Your task to perform on an android device: toggle notifications settings in the gmail app Image 0: 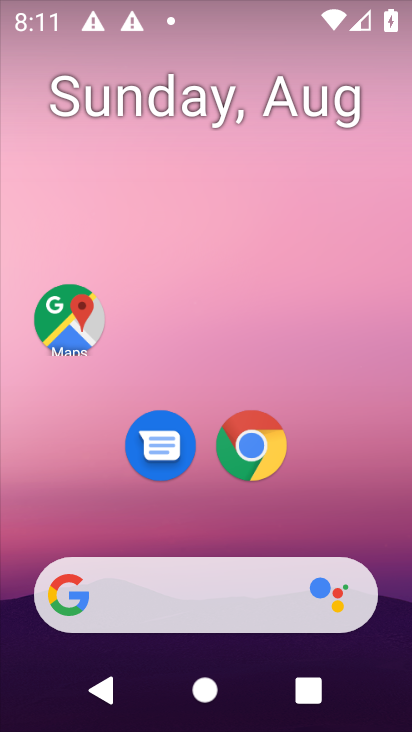
Step 0: drag from (209, 537) to (202, 53)
Your task to perform on an android device: toggle notifications settings in the gmail app Image 1: 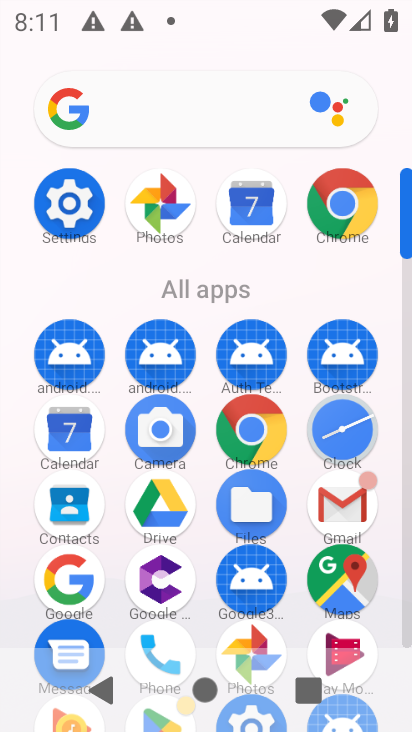
Step 1: click (333, 494)
Your task to perform on an android device: toggle notifications settings in the gmail app Image 2: 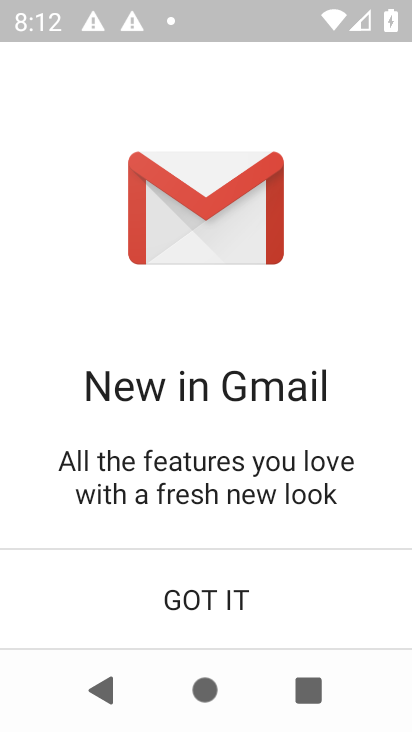
Step 2: click (210, 605)
Your task to perform on an android device: toggle notifications settings in the gmail app Image 3: 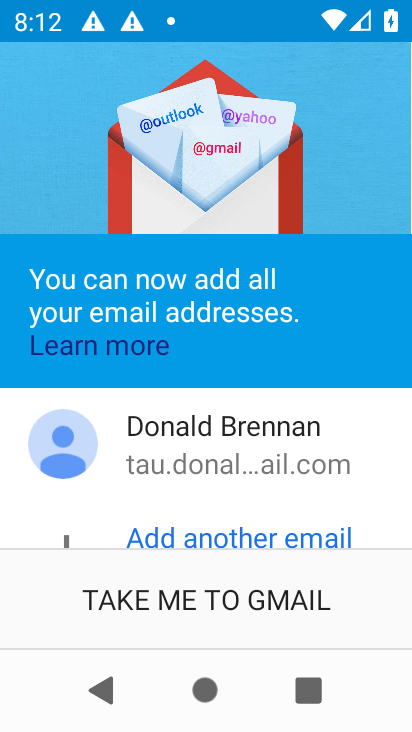
Step 3: click (210, 605)
Your task to perform on an android device: toggle notifications settings in the gmail app Image 4: 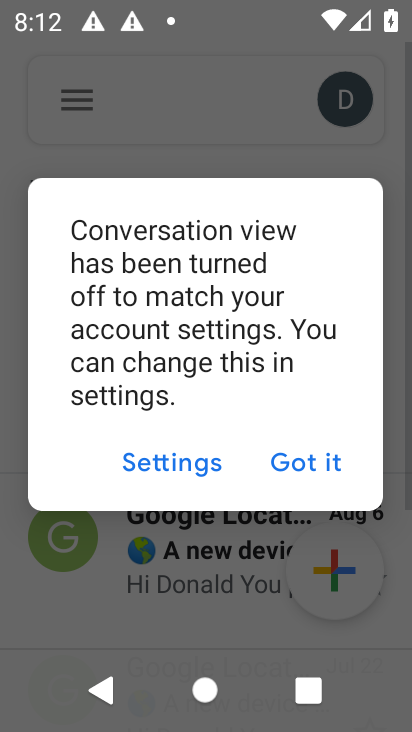
Step 4: click (300, 457)
Your task to perform on an android device: toggle notifications settings in the gmail app Image 5: 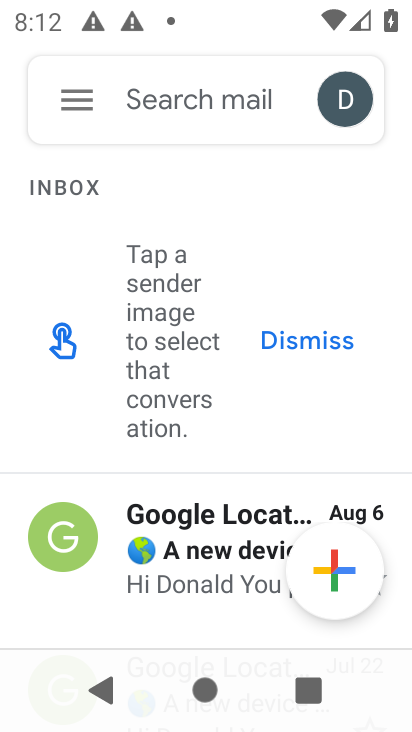
Step 5: click (62, 111)
Your task to perform on an android device: toggle notifications settings in the gmail app Image 6: 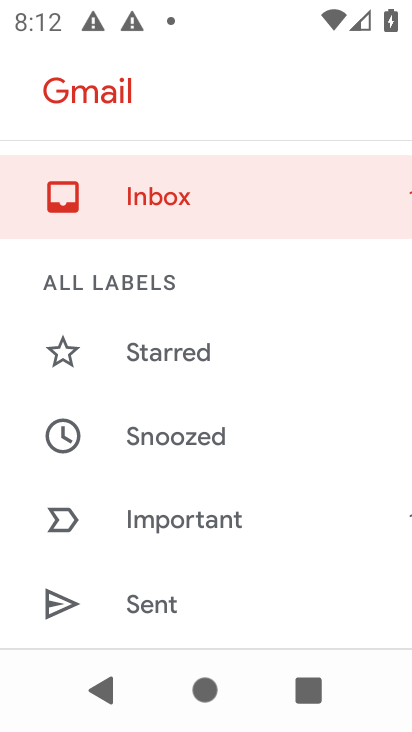
Step 6: drag from (114, 559) to (132, 106)
Your task to perform on an android device: toggle notifications settings in the gmail app Image 7: 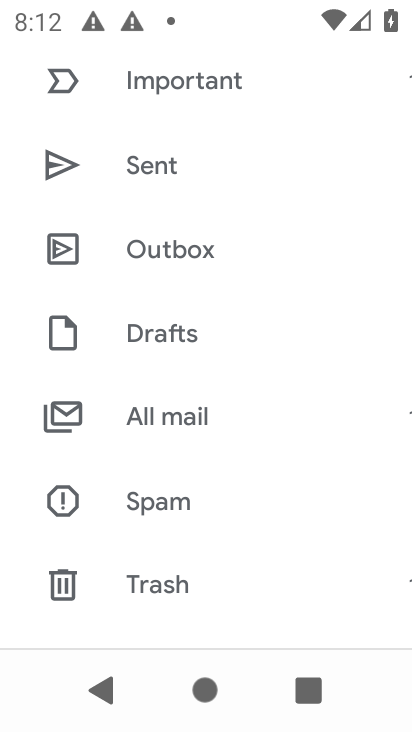
Step 7: drag from (179, 558) to (157, 33)
Your task to perform on an android device: toggle notifications settings in the gmail app Image 8: 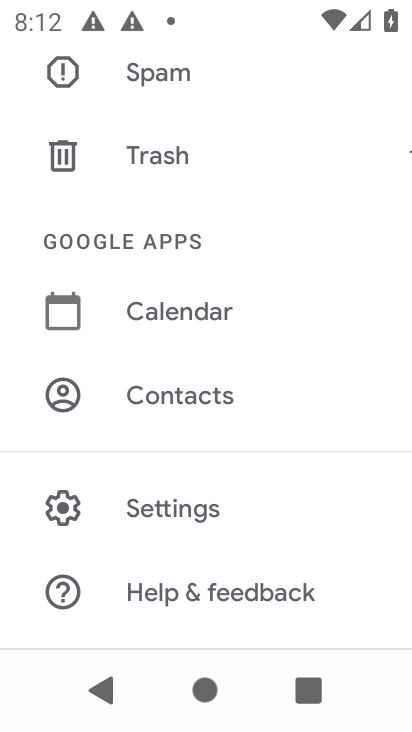
Step 8: click (108, 502)
Your task to perform on an android device: toggle notifications settings in the gmail app Image 9: 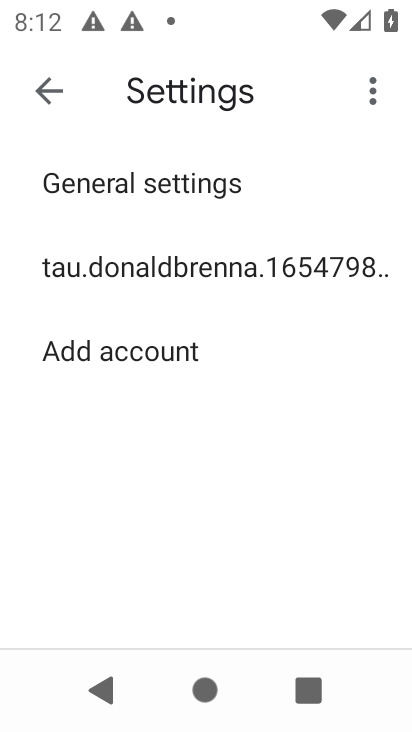
Step 9: click (80, 179)
Your task to perform on an android device: toggle notifications settings in the gmail app Image 10: 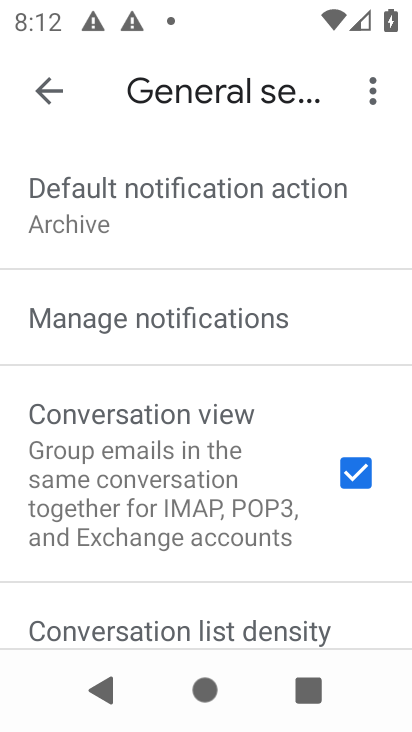
Step 10: click (131, 331)
Your task to perform on an android device: toggle notifications settings in the gmail app Image 11: 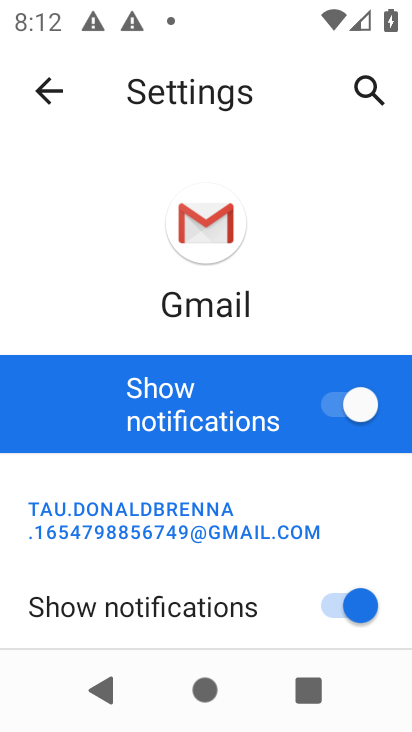
Step 11: click (329, 399)
Your task to perform on an android device: toggle notifications settings in the gmail app Image 12: 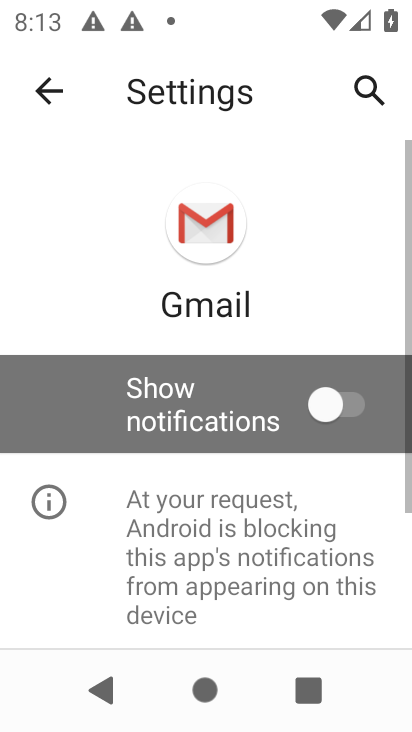
Step 12: task complete